Your task to perform on an android device: show emergency info Image 0: 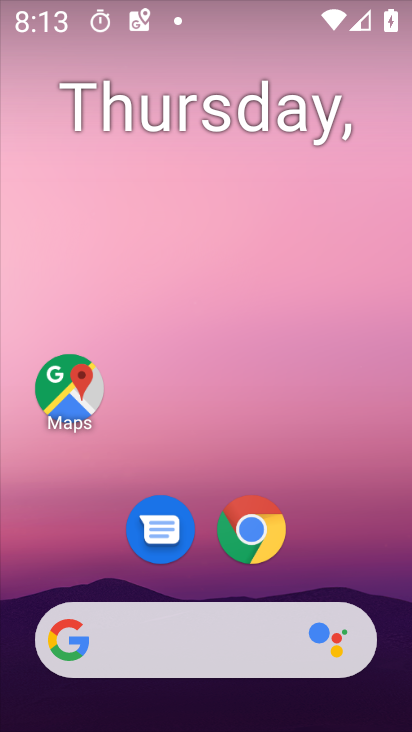
Step 0: drag from (391, 690) to (378, 91)
Your task to perform on an android device: show emergency info Image 1: 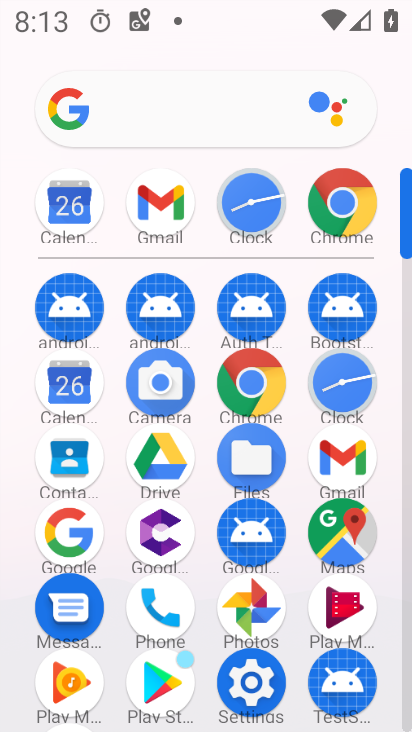
Step 1: click (241, 682)
Your task to perform on an android device: show emergency info Image 2: 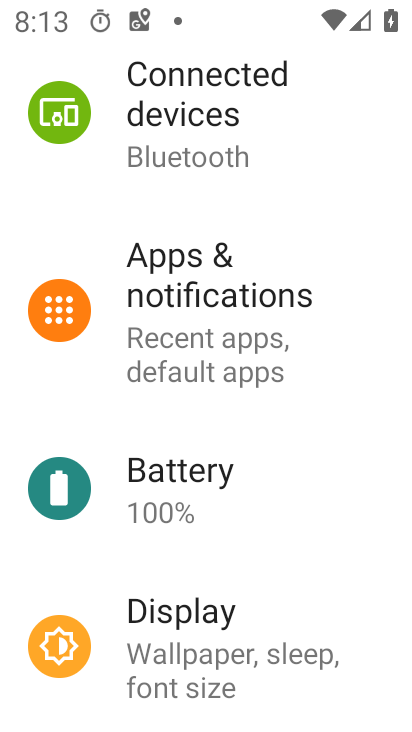
Step 2: drag from (358, 713) to (331, 17)
Your task to perform on an android device: show emergency info Image 3: 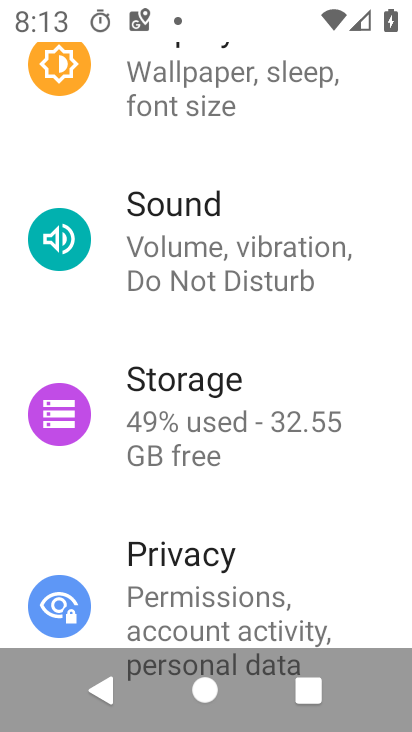
Step 3: drag from (381, 639) to (353, 6)
Your task to perform on an android device: show emergency info Image 4: 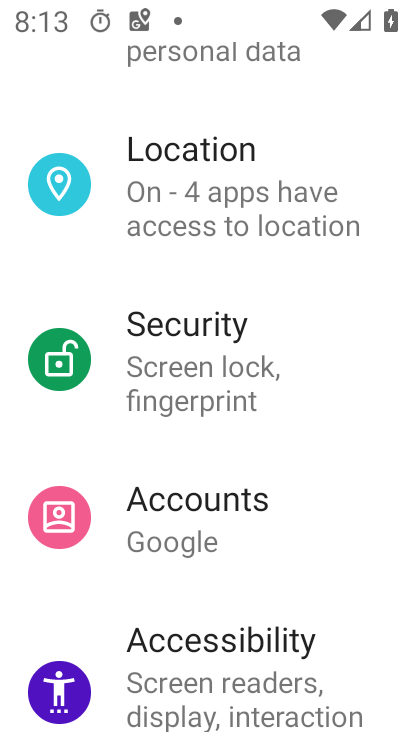
Step 4: drag from (370, 627) to (333, 77)
Your task to perform on an android device: show emergency info Image 5: 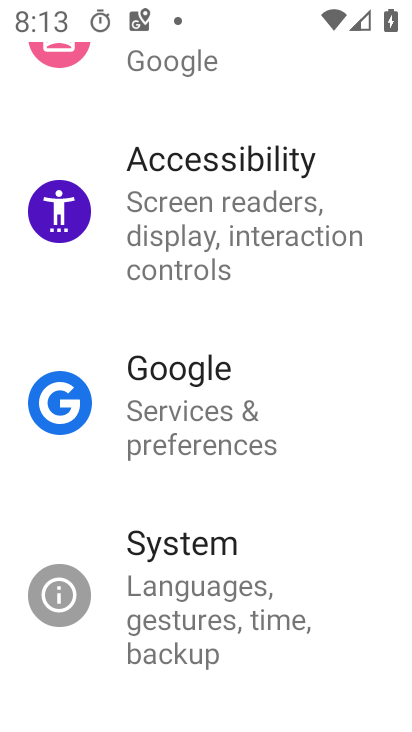
Step 5: drag from (349, 711) to (308, 192)
Your task to perform on an android device: show emergency info Image 6: 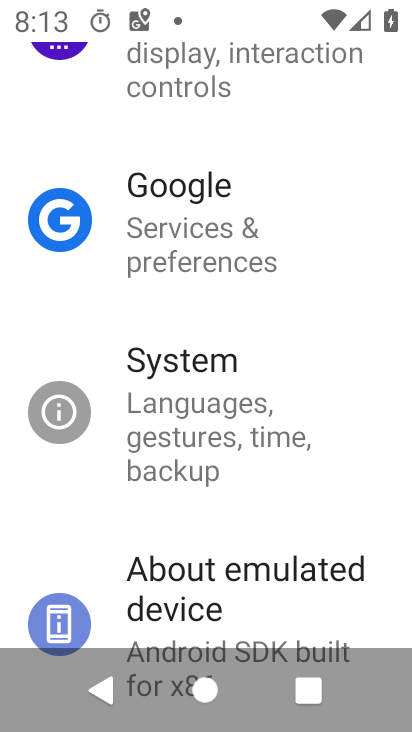
Step 6: click (202, 638)
Your task to perform on an android device: show emergency info Image 7: 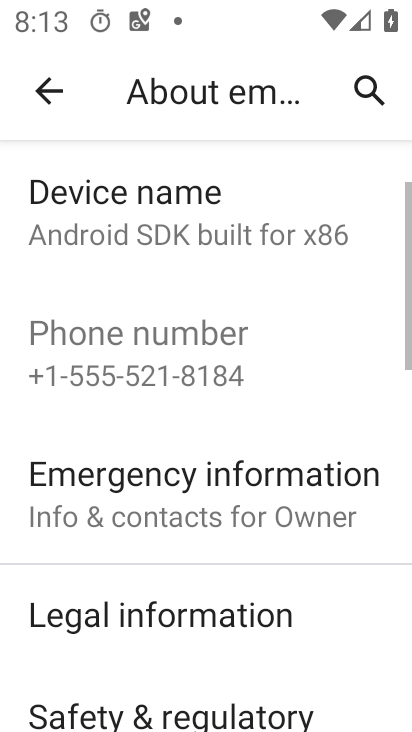
Step 7: click (168, 482)
Your task to perform on an android device: show emergency info Image 8: 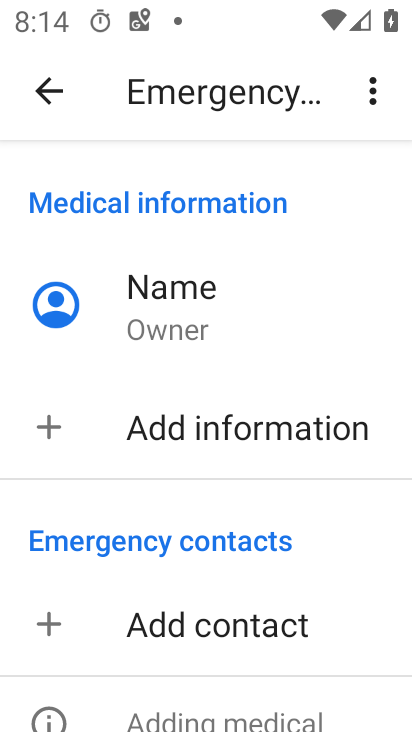
Step 8: task complete